Your task to perform on an android device: search for starred emails in the gmail app Image 0: 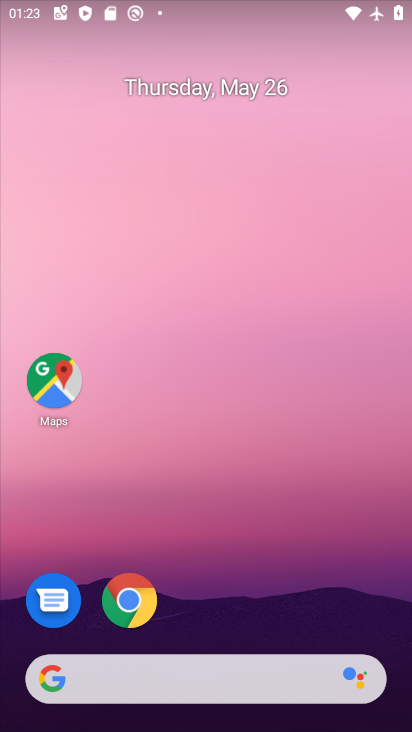
Step 0: drag from (262, 569) to (249, 73)
Your task to perform on an android device: search for starred emails in the gmail app Image 1: 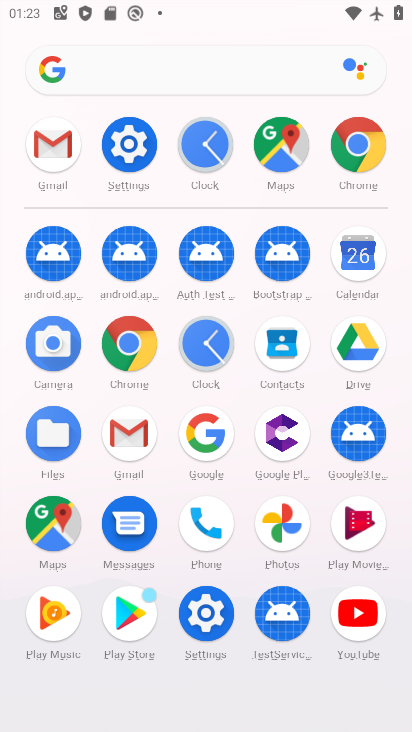
Step 1: click (64, 148)
Your task to perform on an android device: search for starred emails in the gmail app Image 2: 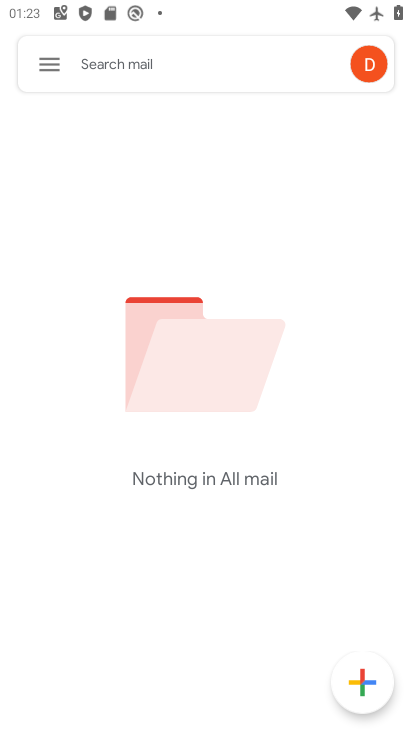
Step 2: click (40, 64)
Your task to perform on an android device: search for starred emails in the gmail app Image 3: 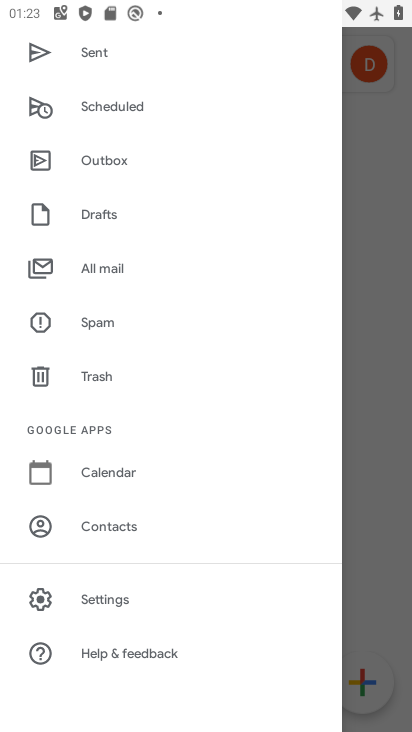
Step 3: drag from (165, 496) to (172, 633)
Your task to perform on an android device: search for starred emails in the gmail app Image 4: 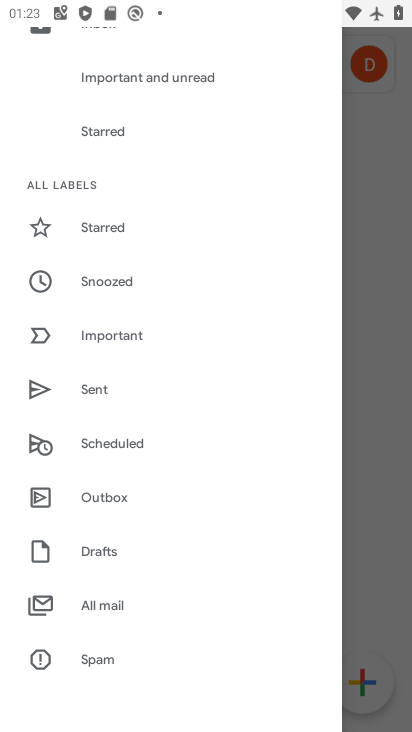
Step 4: click (99, 235)
Your task to perform on an android device: search for starred emails in the gmail app Image 5: 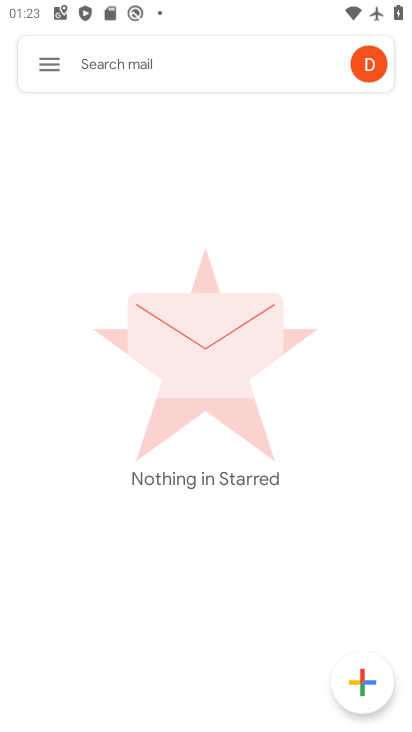
Step 5: task complete